Your task to perform on an android device: Search for "amazon basics triple a" on newegg, select the first entry, add it to the cart, then select checkout. Image 0: 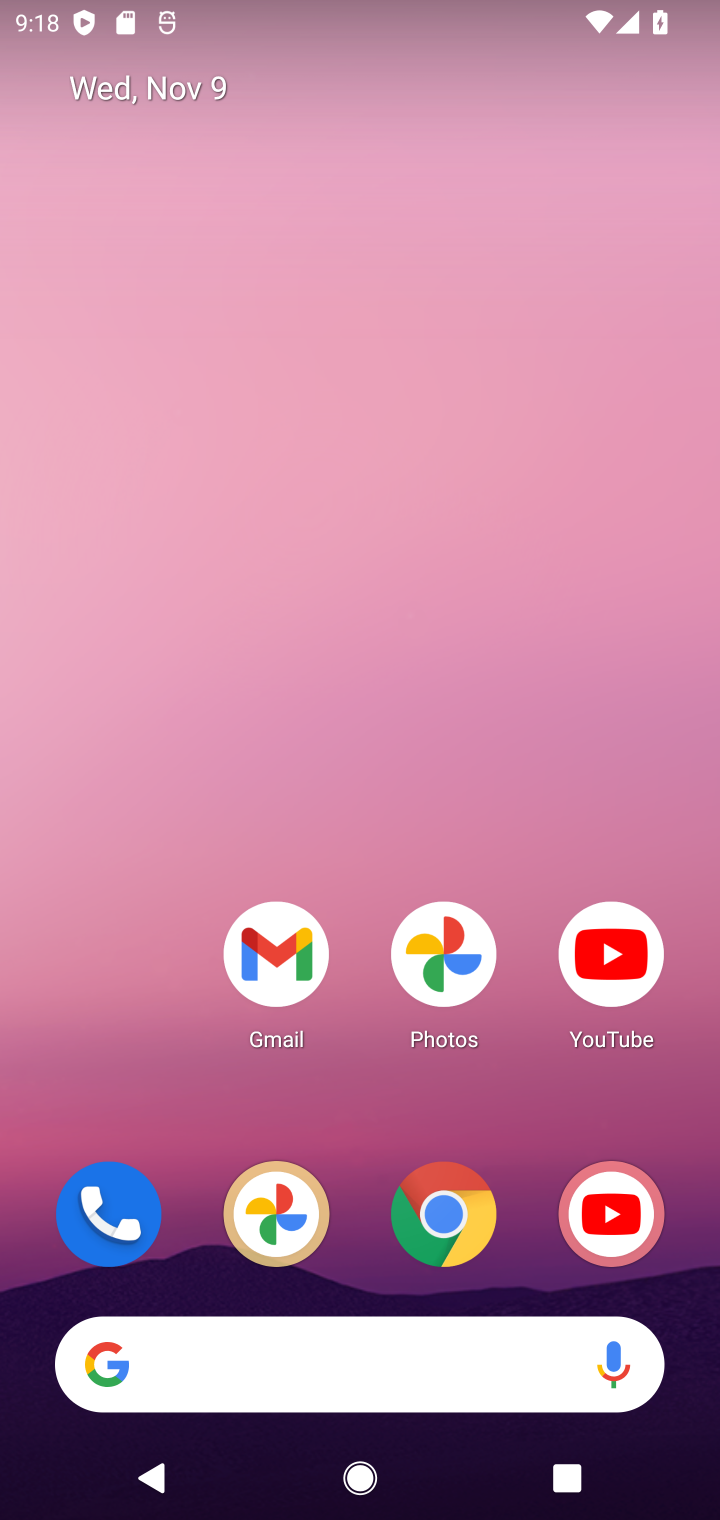
Step 0: drag from (354, 1140) to (442, 185)
Your task to perform on an android device: Search for "amazon basics triple a" on newegg, select the first entry, add it to the cart, then select checkout. Image 1: 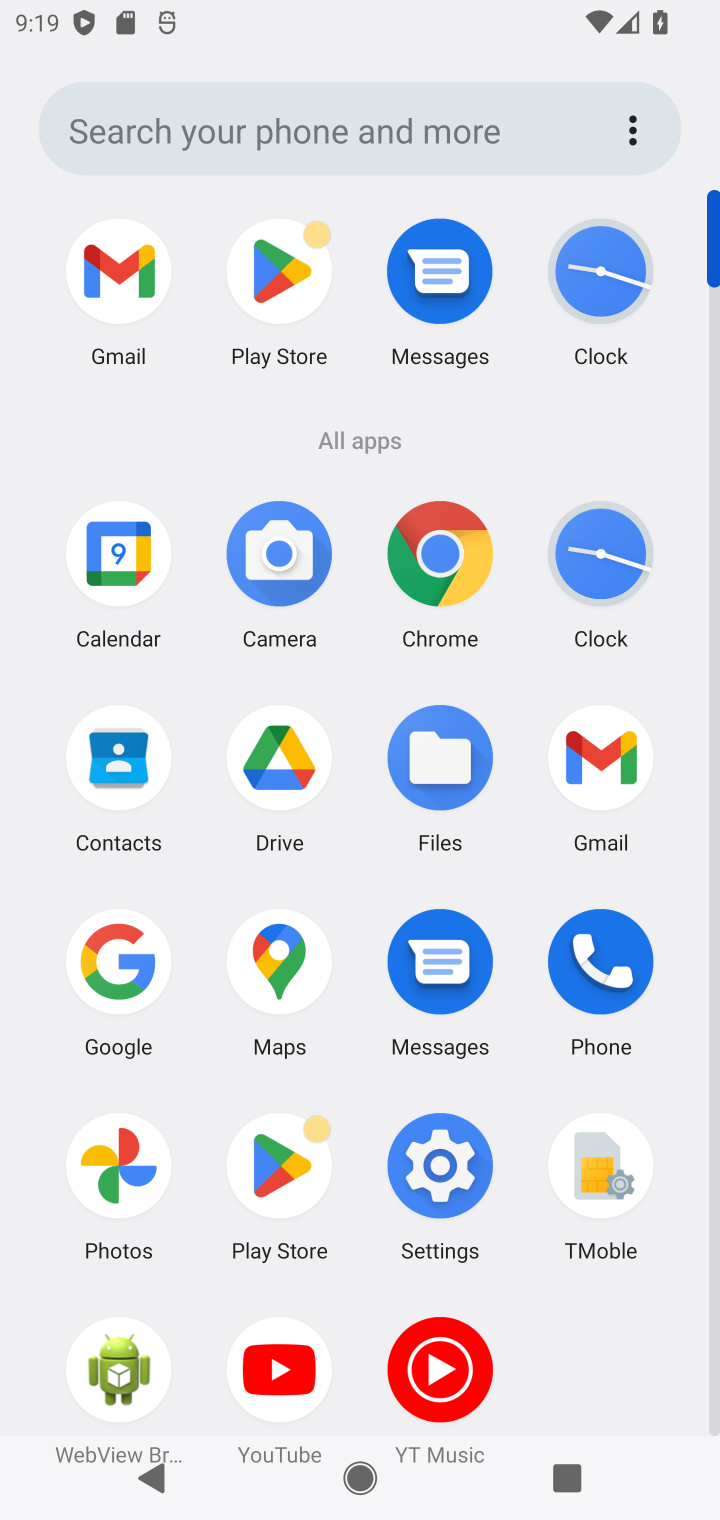
Step 1: click (428, 543)
Your task to perform on an android device: Search for "amazon basics triple a" on newegg, select the first entry, add it to the cart, then select checkout. Image 2: 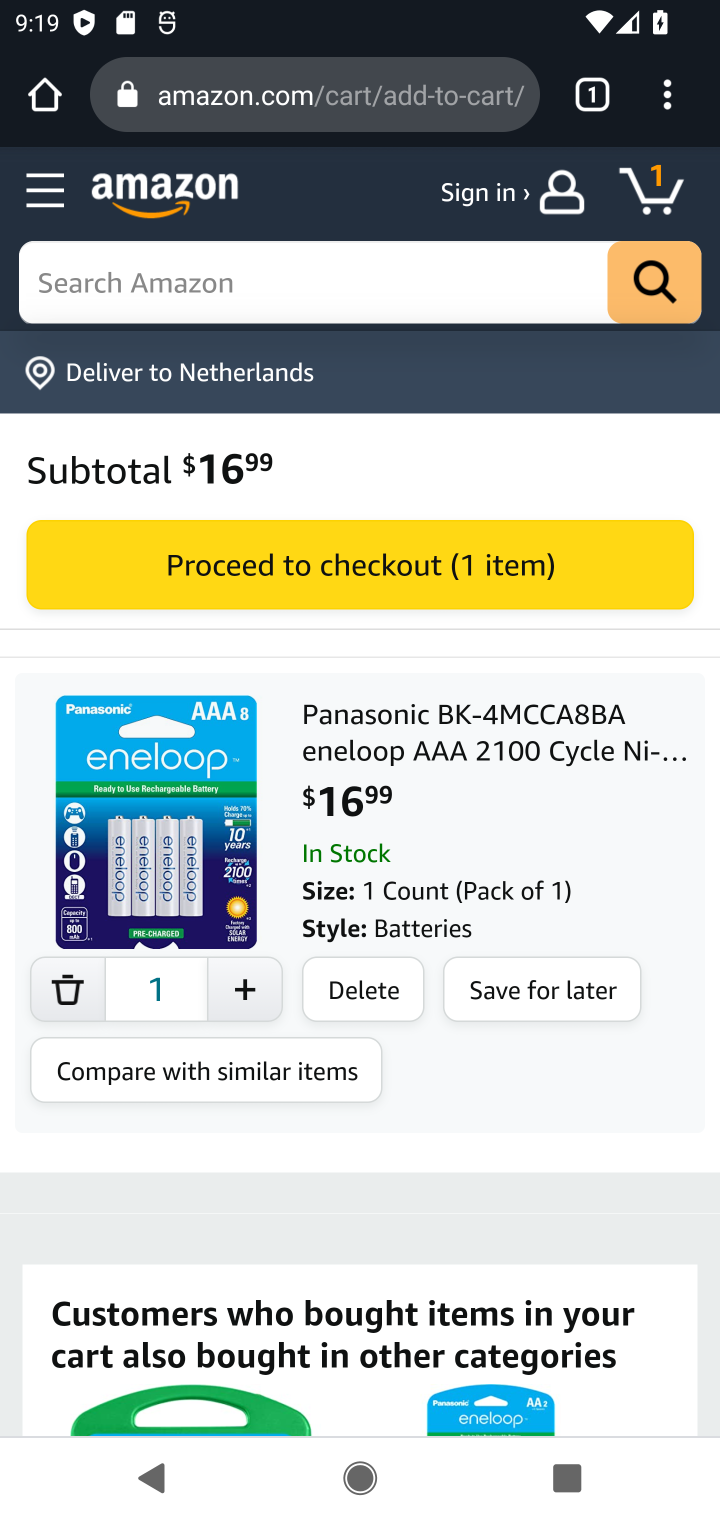
Step 2: click (345, 90)
Your task to perform on an android device: Search for "amazon basics triple a" on newegg, select the first entry, add it to the cart, then select checkout. Image 3: 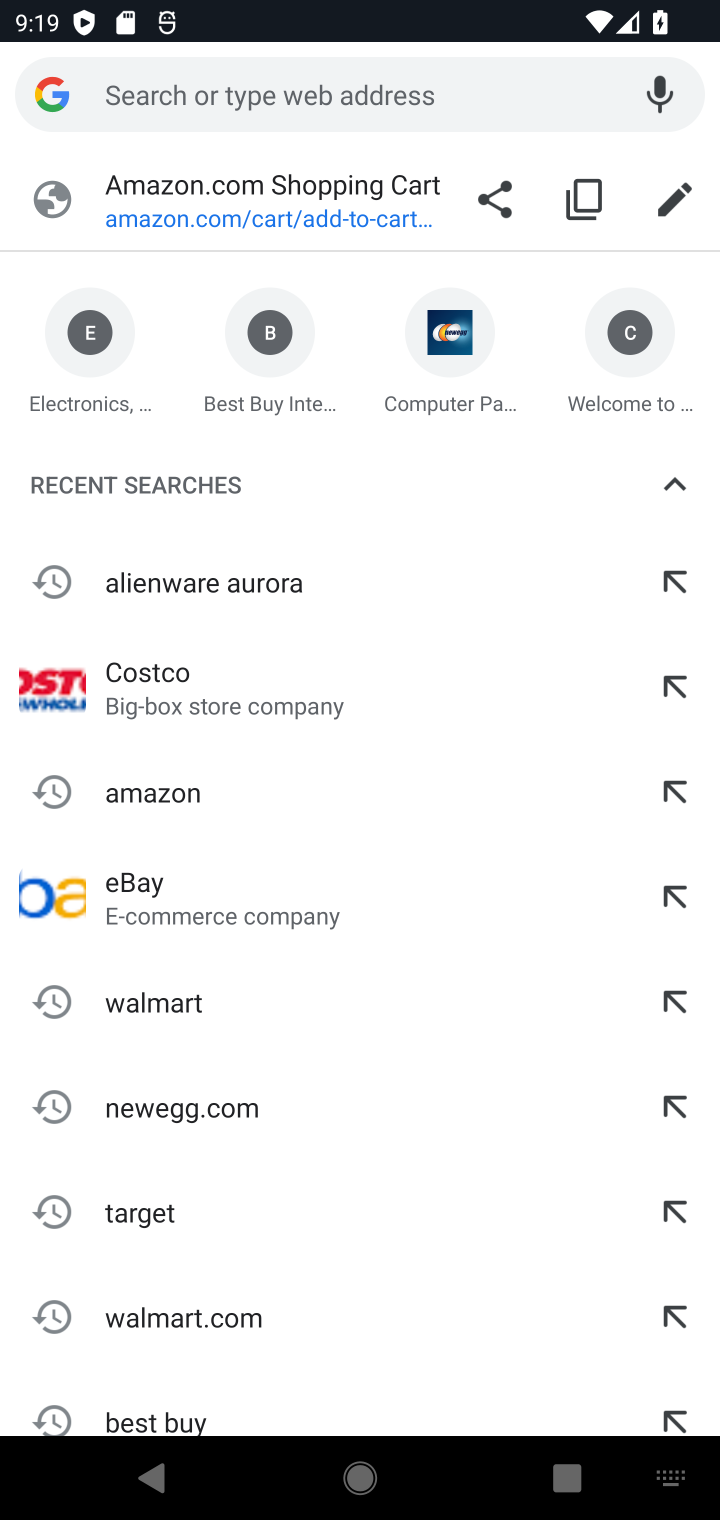
Step 3: type "newegg.com"
Your task to perform on an android device: Search for "amazon basics triple a" on newegg, select the first entry, add it to the cart, then select checkout. Image 4: 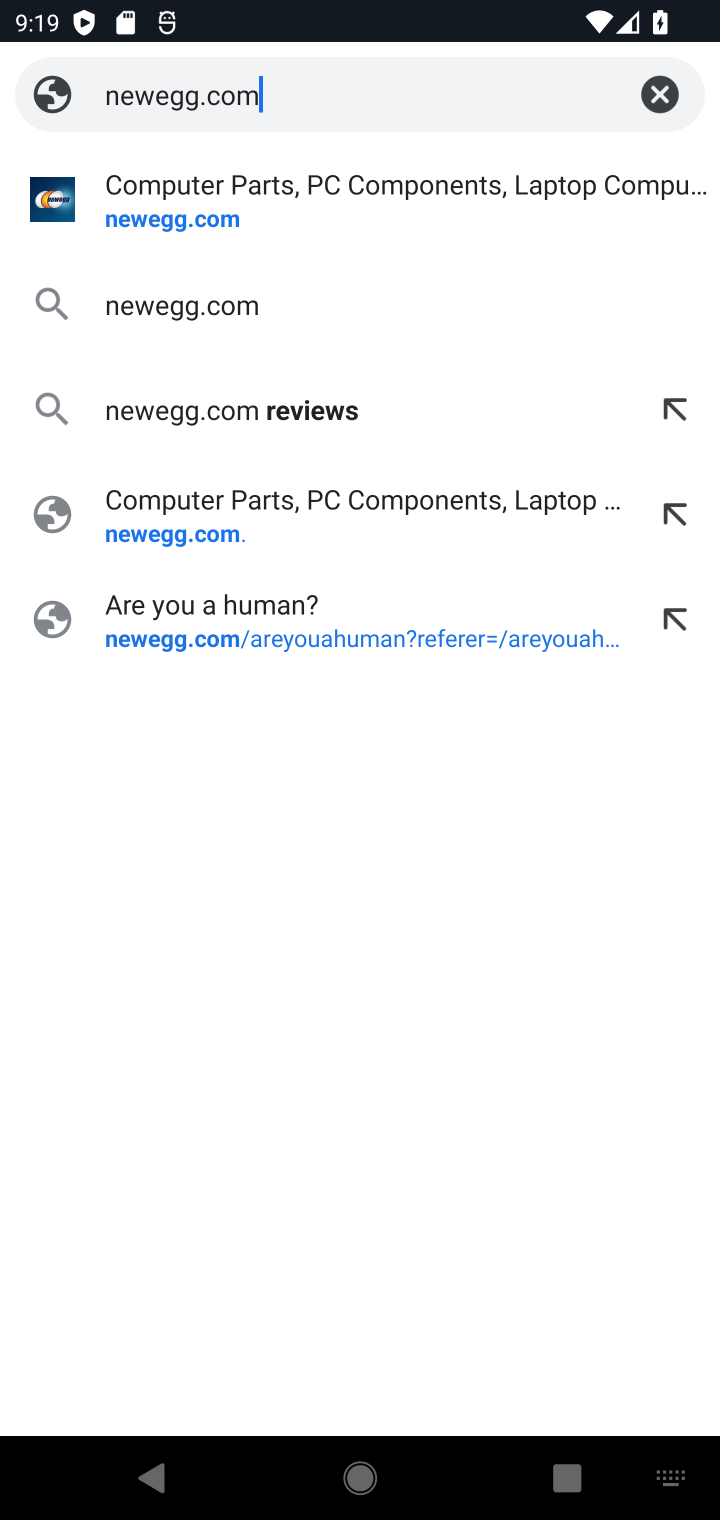
Step 4: press enter
Your task to perform on an android device: Search for "amazon basics triple a" on newegg, select the first entry, add it to the cart, then select checkout. Image 5: 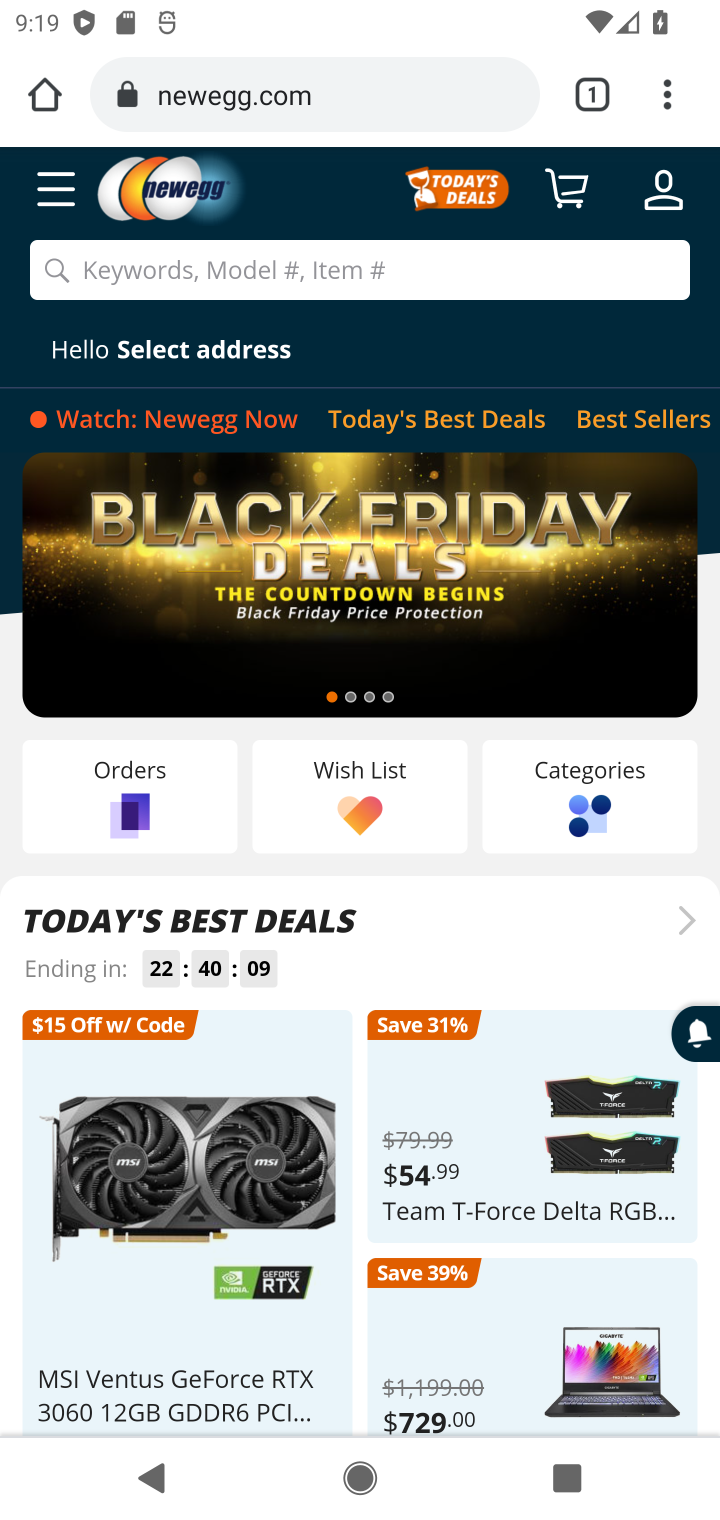
Step 5: click (472, 275)
Your task to perform on an android device: Search for "amazon basics triple a" on newegg, select the first entry, add it to the cart, then select checkout. Image 6: 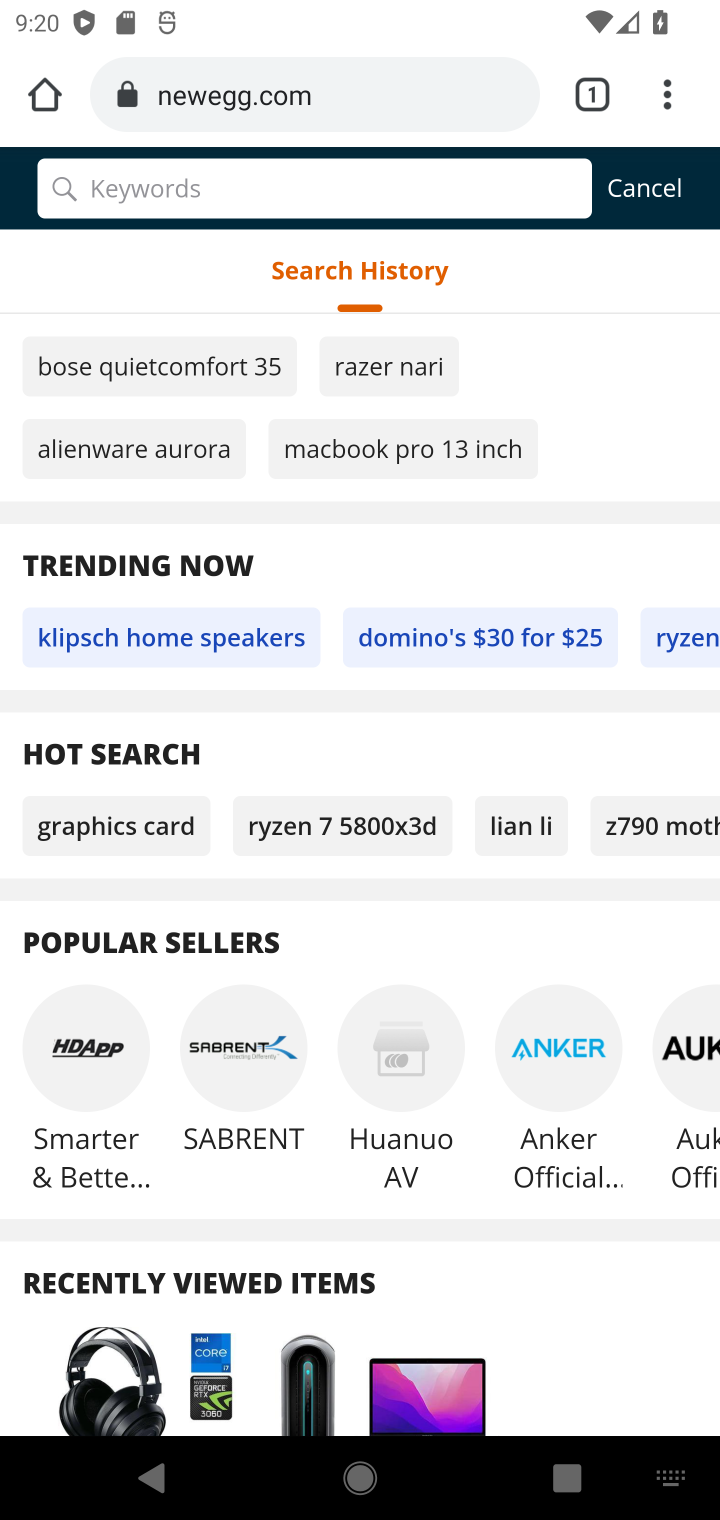
Step 6: type "amazon basic triple a"
Your task to perform on an android device: Search for "amazon basics triple a" on newegg, select the first entry, add it to the cart, then select checkout. Image 7: 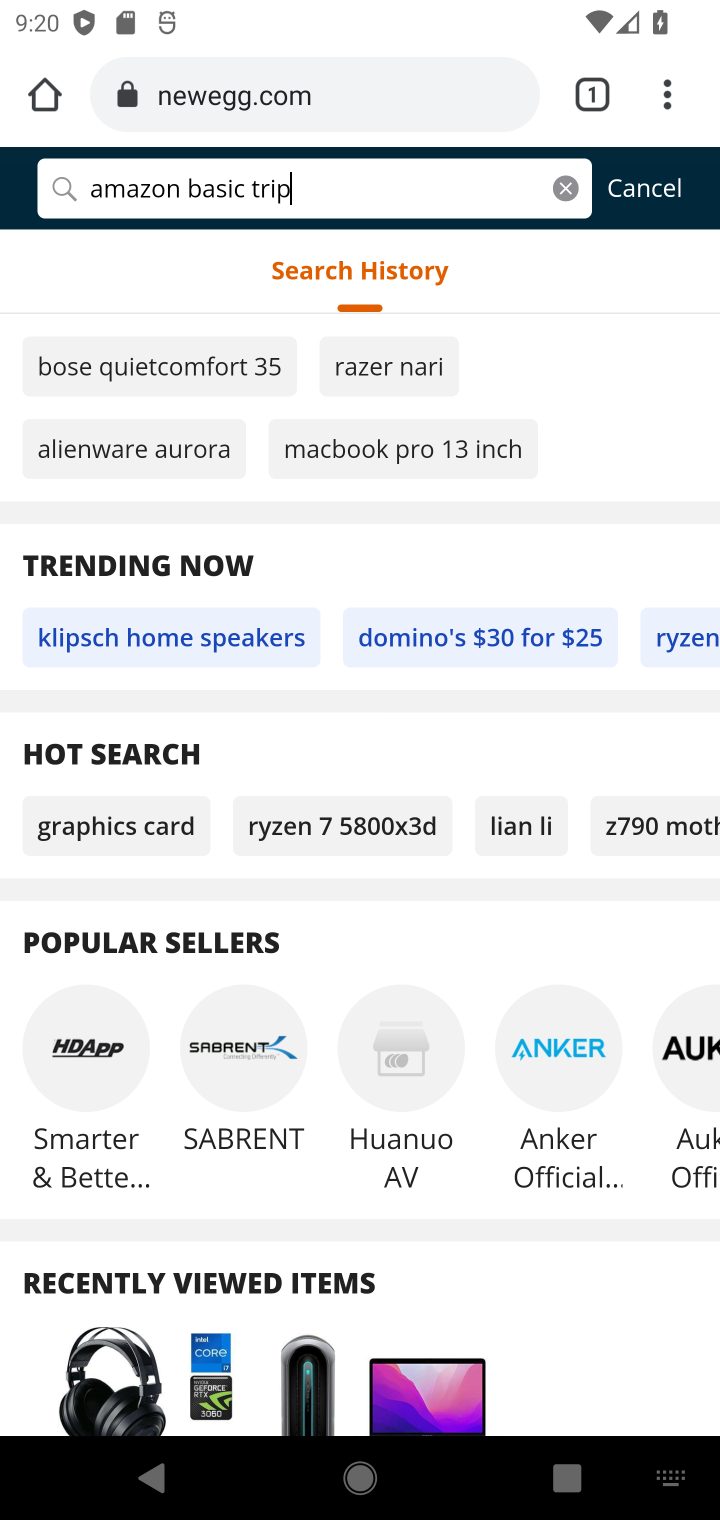
Step 7: press enter
Your task to perform on an android device: Search for "amazon basics triple a" on newegg, select the first entry, add it to the cart, then select checkout. Image 8: 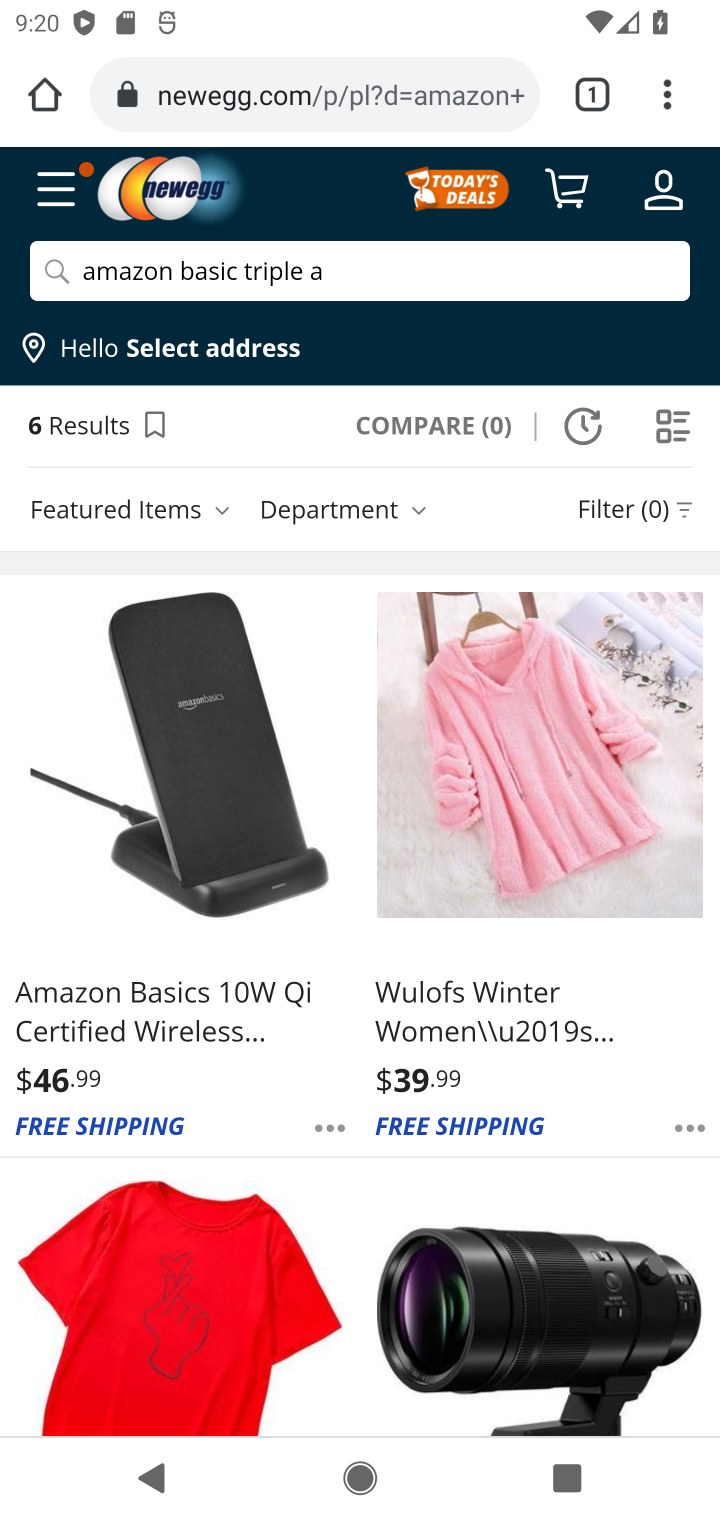
Step 8: task complete